Your task to perform on an android device: delete a single message in the gmail app Image 0: 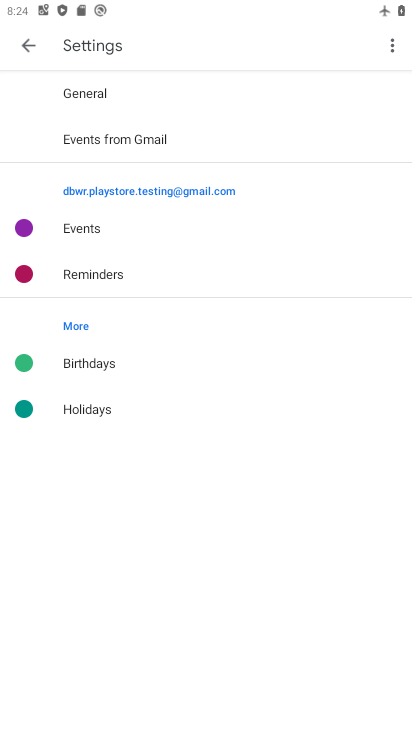
Step 0: press home button
Your task to perform on an android device: delete a single message in the gmail app Image 1: 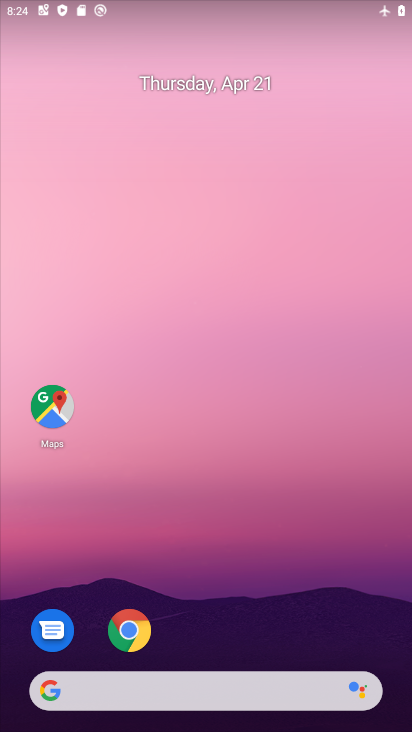
Step 1: drag from (220, 619) to (327, 19)
Your task to perform on an android device: delete a single message in the gmail app Image 2: 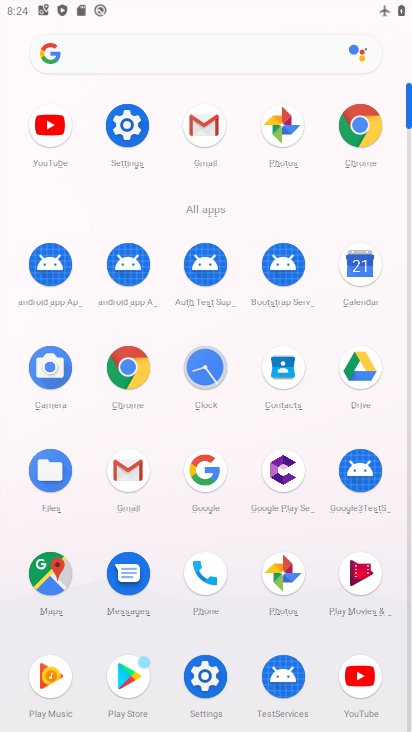
Step 2: click (113, 525)
Your task to perform on an android device: delete a single message in the gmail app Image 3: 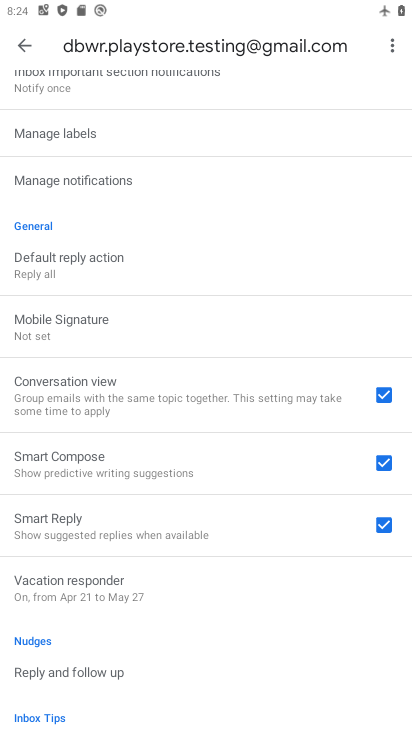
Step 3: click (32, 46)
Your task to perform on an android device: delete a single message in the gmail app Image 4: 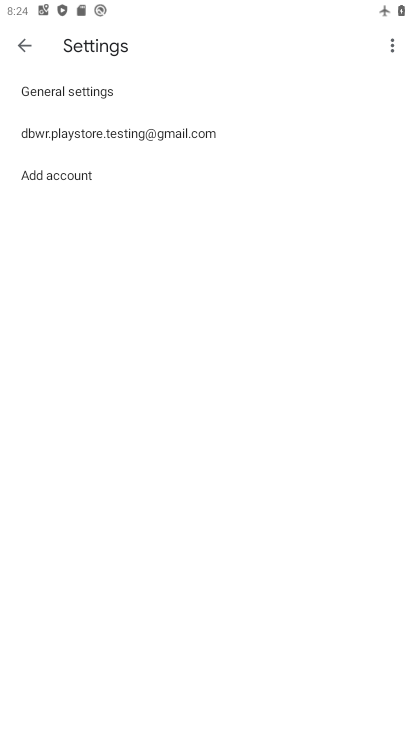
Step 4: click (36, 52)
Your task to perform on an android device: delete a single message in the gmail app Image 5: 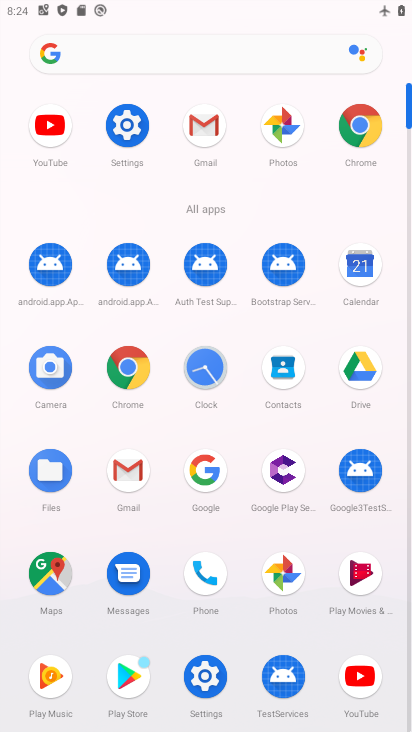
Step 5: click (141, 460)
Your task to perform on an android device: delete a single message in the gmail app Image 6: 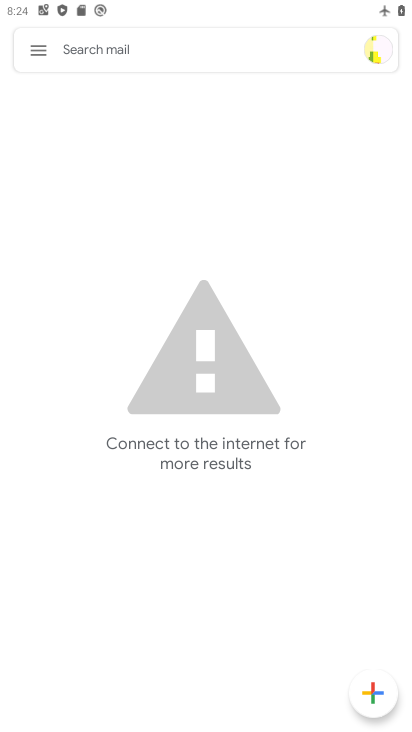
Step 6: task complete